Your task to perform on an android device: Open settings Image 0: 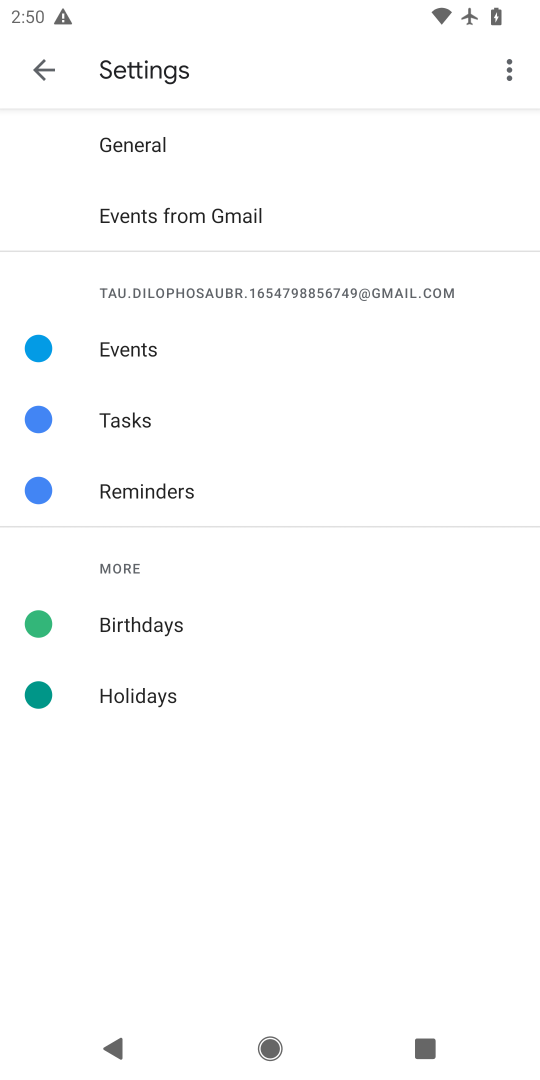
Step 0: press home button
Your task to perform on an android device: Open settings Image 1: 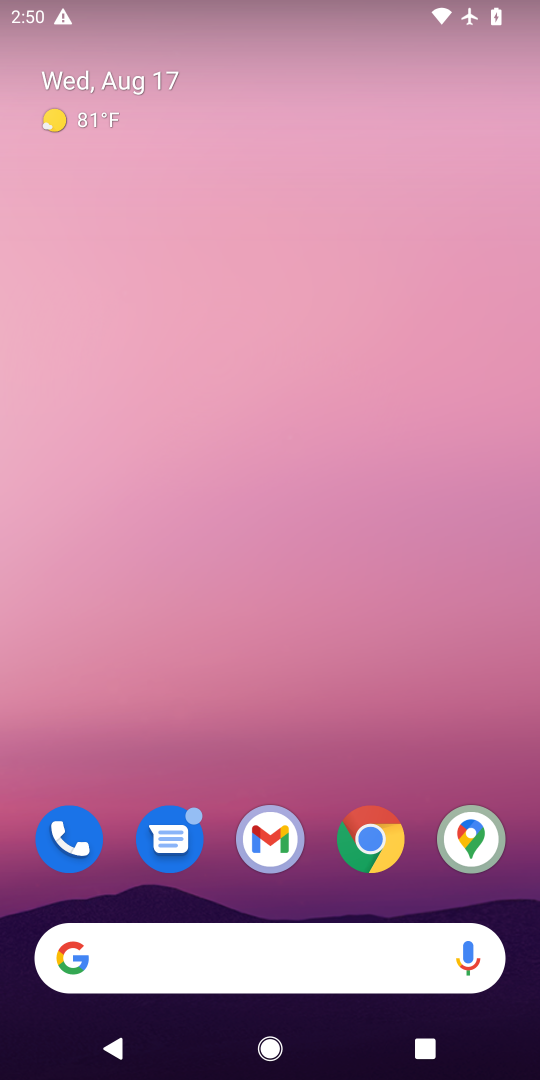
Step 1: drag from (308, 901) to (348, 62)
Your task to perform on an android device: Open settings Image 2: 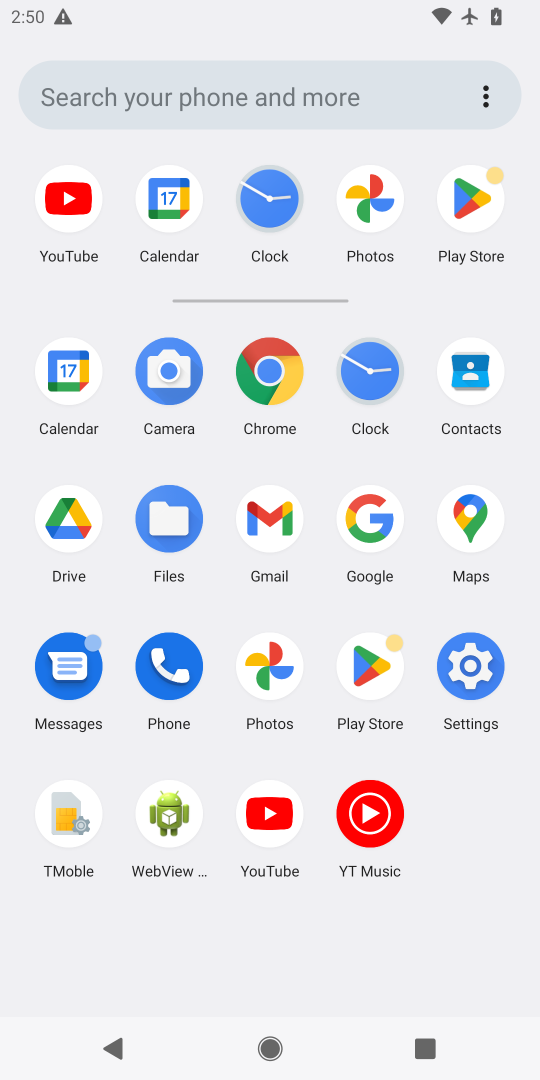
Step 2: click (472, 677)
Your task to perform on an android device: Open settings Image 3: 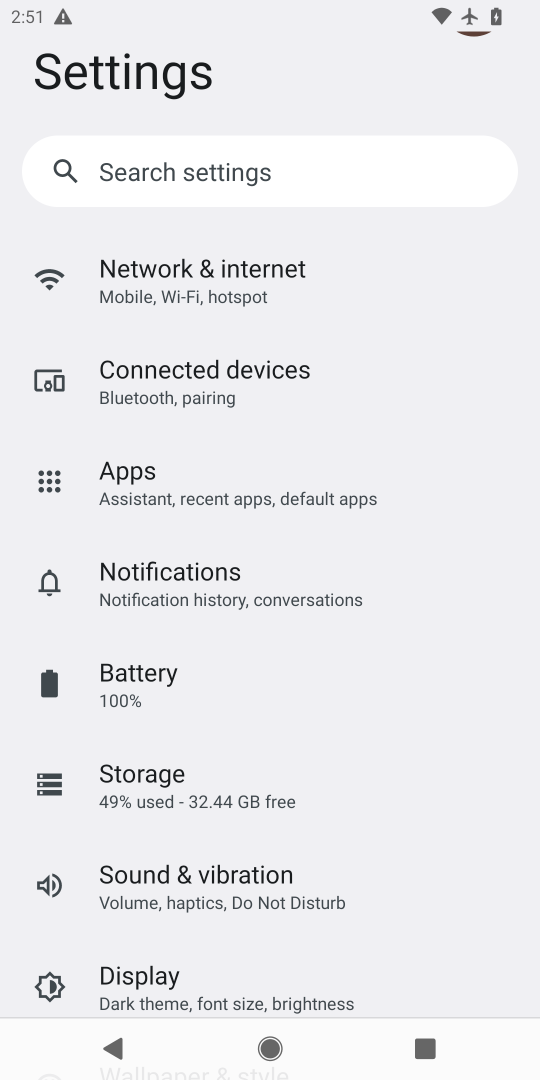
Step 3: task complete